Your task to perform on an android device: Go to internet settings Image 0: 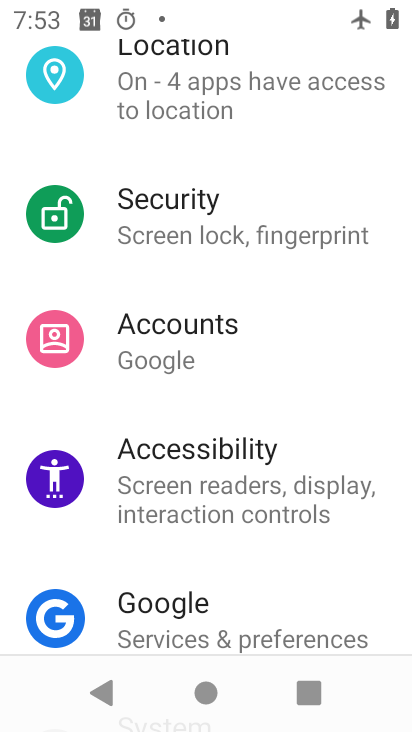
Step 0: press home button
Your task to perform on an android device: Go to internet settings Image 1: 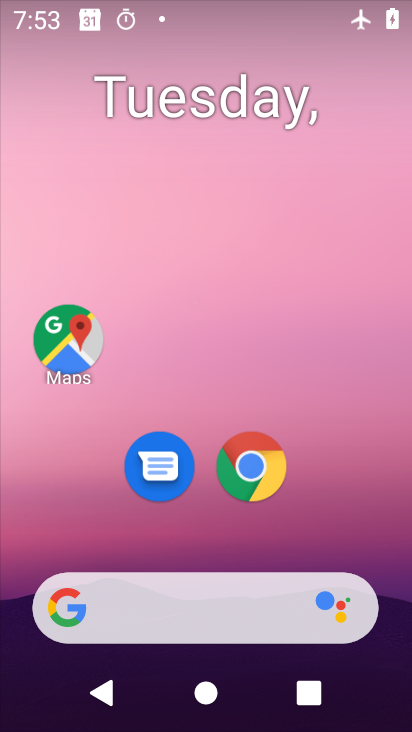
Step 1: drag from (49, 543) to (200, 177)
Your task to perform on an android device: Go to internet settings Image 2: 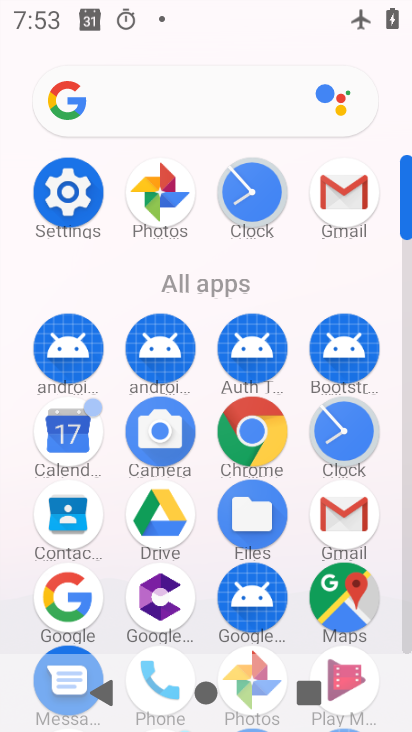
Step 2: click (67, 185)
Your task to perform on an android device: Go to internet settings Image 3: 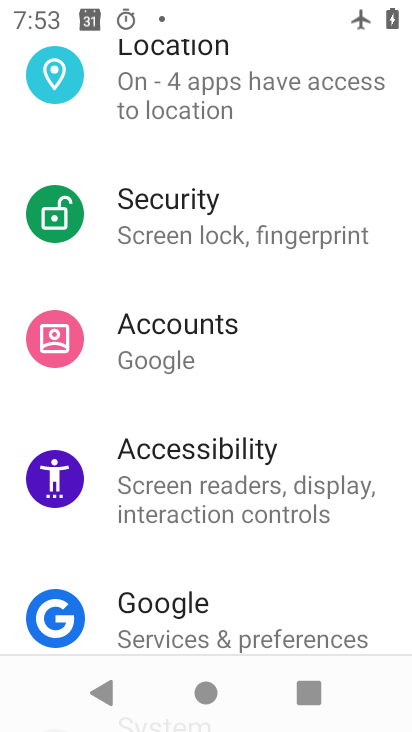
Step 3: drag from (83, 163) to (63, 588)
Your task to perform on an android device: Go to internet settings Image 4: 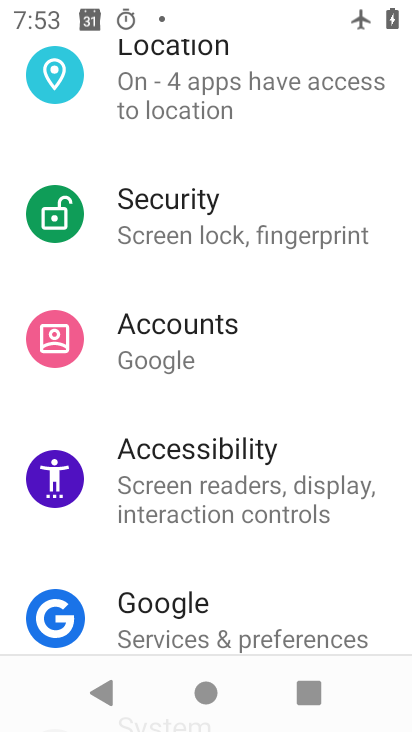
Step 4: drag from (107, 77) to (134, 603)
Your task to perform on an android device: Go to internet settings Image 5: 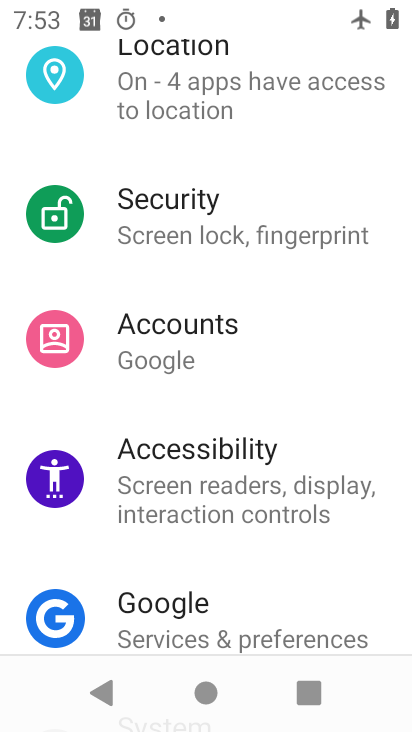
Step 5: drag from (244, 74) to (194, 604)
Your task to perform on an android device: Go to internet settings Image 6: 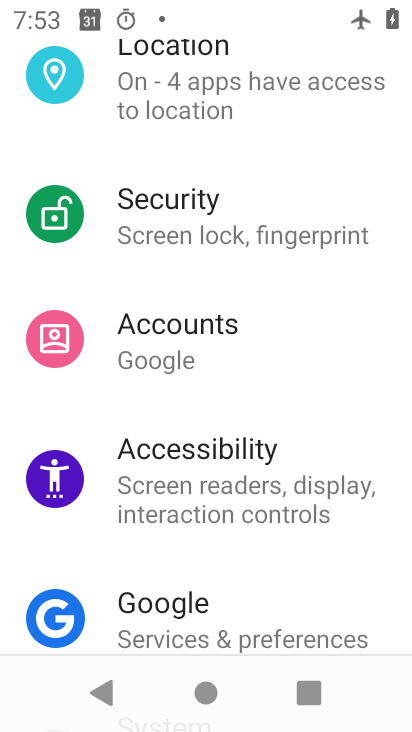
Step 6: drag from (171, 91) to (109, 585)
Your task to perform on an android device: Go to internet settings Image 7: 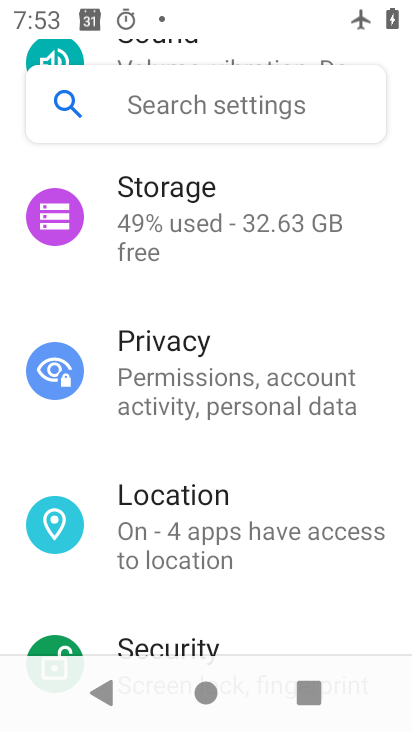
Step 7: drag from (131, 191) to (97, 568)
Your task to perform on an android device: Go to internet settings Image 8: 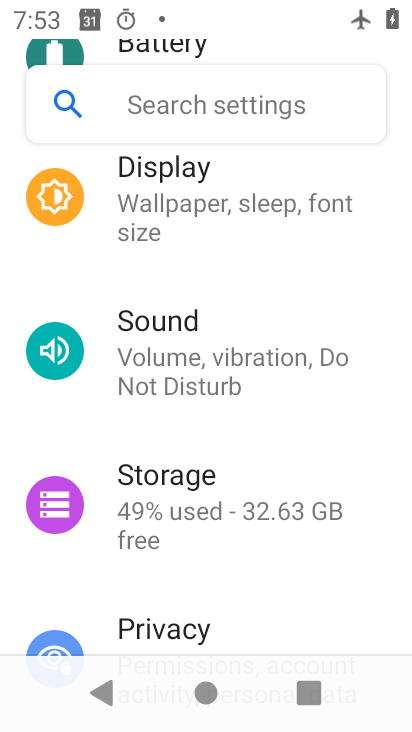
Step 8: drag from (142, 159) to (133, 556)
Your task to perform on an android device: Go to internet settings Image 9: 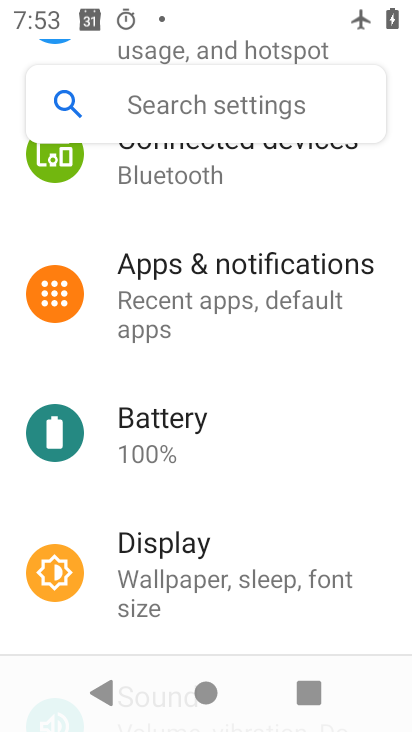
Step 9: drag from (163, 196) to (163, 532)
Your task to perform on an android device: Go to internet settings Image 10: 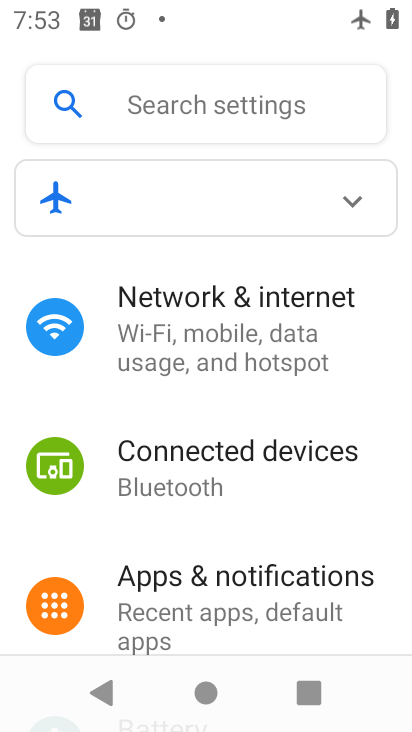
Step 10: click (178, 306)
Your task to perform on an android device: Go to internet settings Image 11: 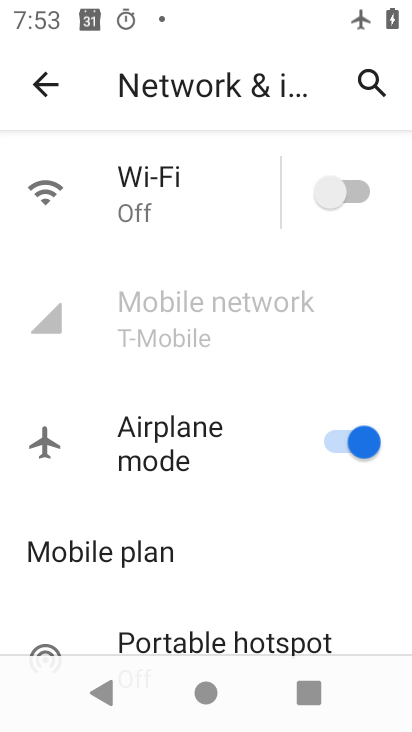
Step 11: click (369, 449)
Your task to perform on an android device: Go to internet settings Image 12: 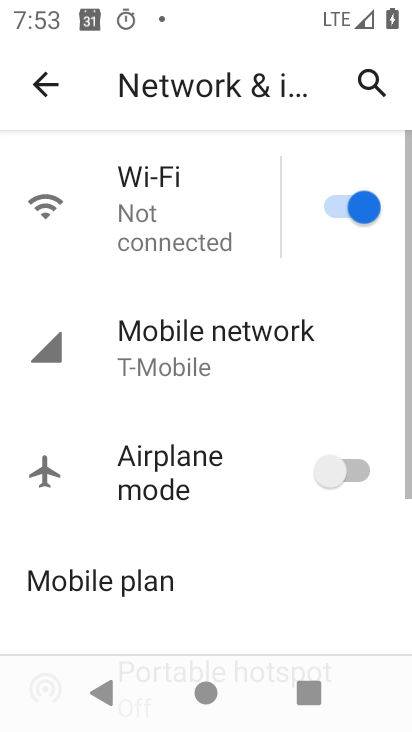
Step 12: task complete